Your task to perform on an android device: What is the capital of Brazil? Image 0: 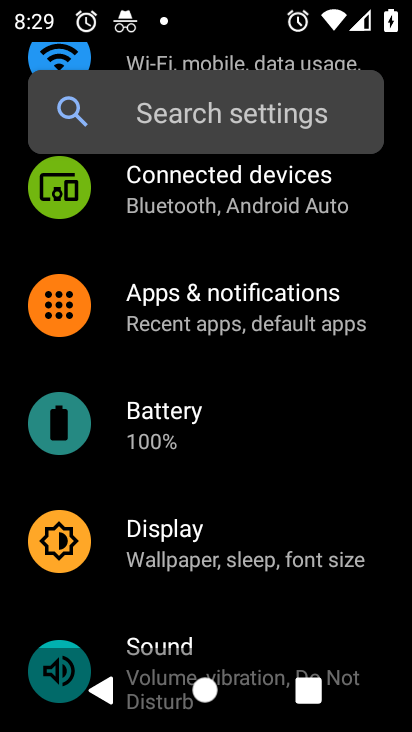
Step 0: press home button
Your task to perform on an android device: What is the capital of Brazil? Image 1: 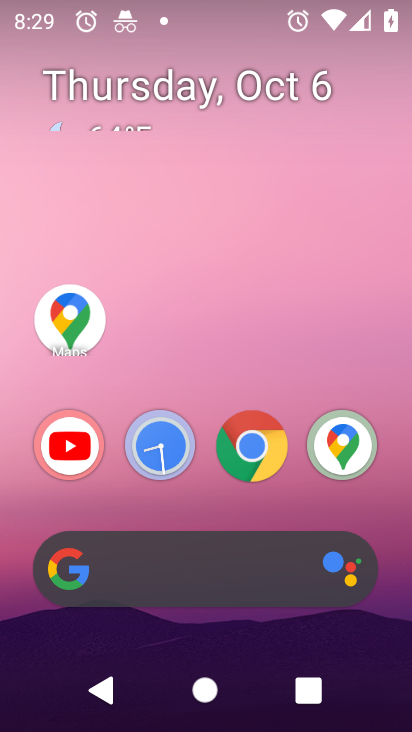
Step 1: click (181, 591)
Your task to perform on an android device: What is the capital of Brazil? Image 2: 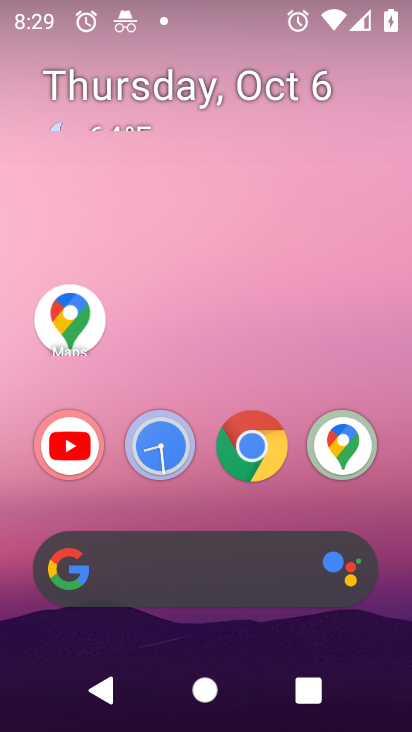
Step 2: click (181, 591)
Your task to perform on an android device: What is the capital of Brazil? Image 3: 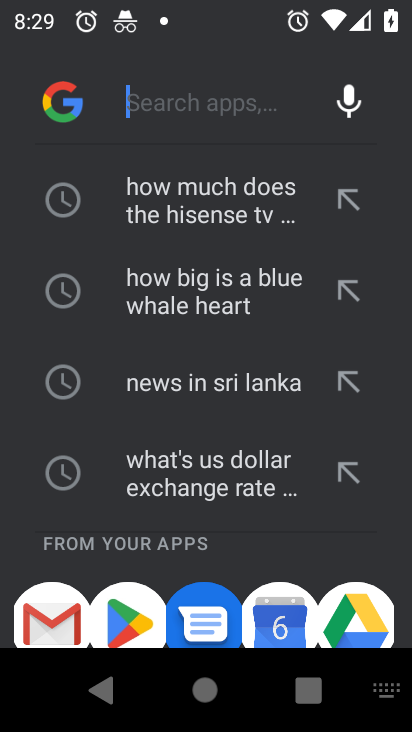
Step 3: type "What is the capital of Brazil?"
Your task to perform on an android device: What is the capital of Brazil? Image 4: 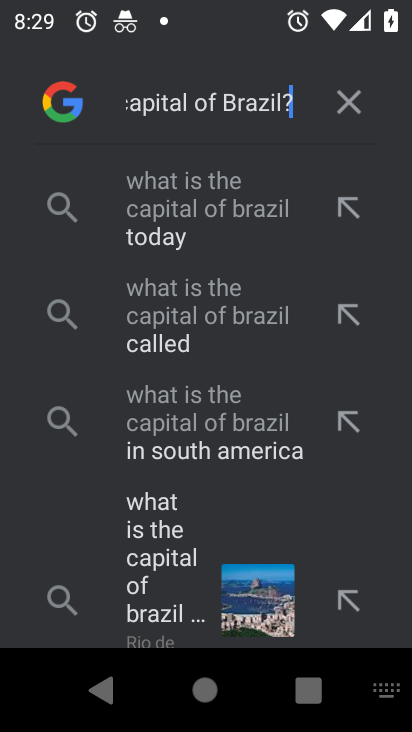
Step 4: click (219, 228)
Your task to perform on an android device: What is the capital of Brazil? Image 5: 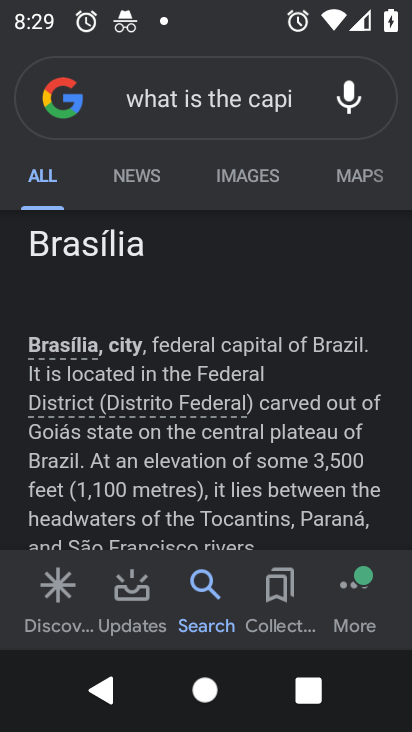
Step 5: task complete